Your task to perform on an android device: open sync settings in chrome Image 0: 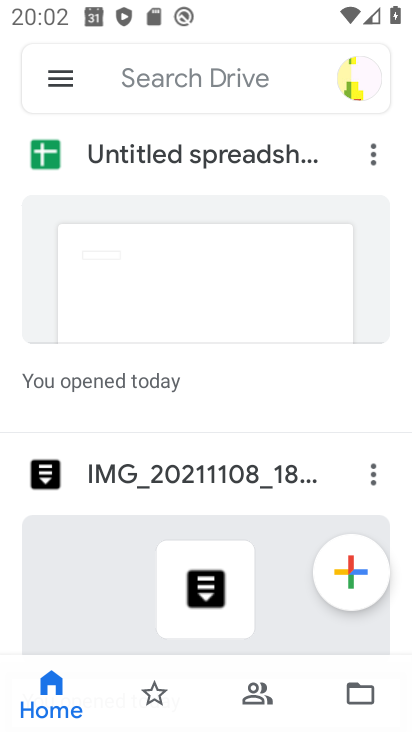
Step 0: press home button
Your task to perform on an android device: open sync settings in chrome Image 1: 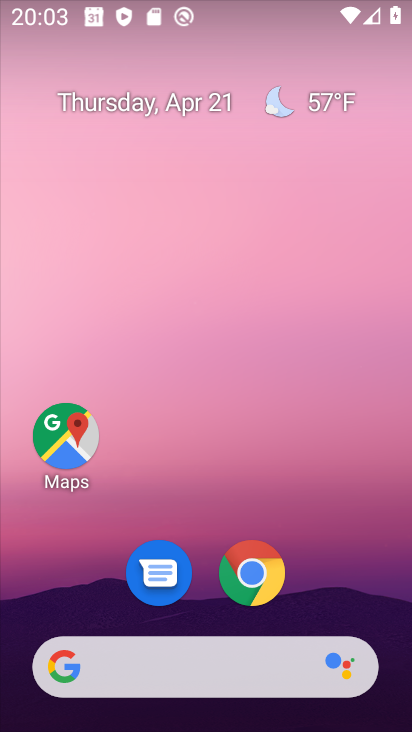
Step 1: click (248, 571)
Your task to perform on an android device: open sync settings in chrome Image 2: 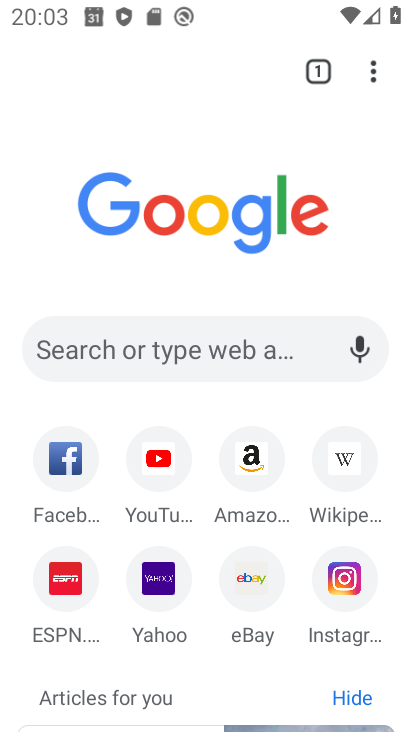
Step 2: drag from (374, 67) to (167, 602)
Your task to perform on an android device: open sync settings in chrome Image 3: 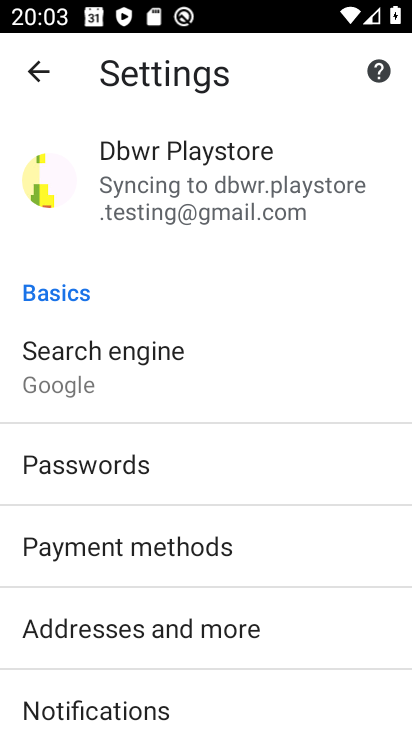
Step 3: drag from (166, 683) to (189, 341)
Your task to perform on an android device: open sync settings in chrome Image 4: 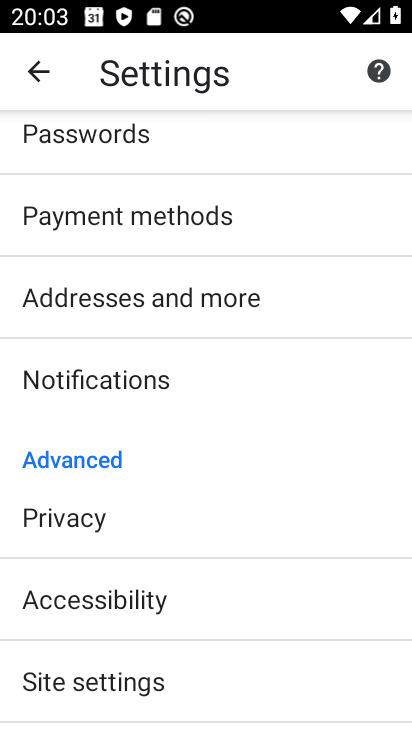
Step 4: drag from (181, 668) to (193, 404)
Your task to perform on an android device: open sync settings in chrome Image 5: 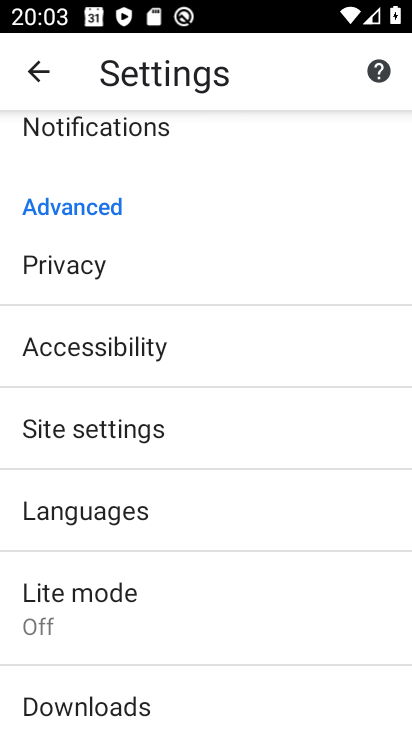
Step 5: click (140, 430)
Your task to perform on an android device: open sync settings in chrome Image 6: 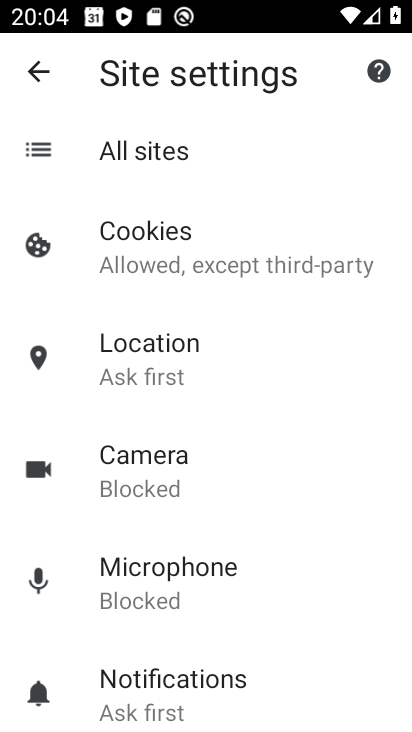
Step 6: drag from (152, 638) to (163, 390)
Your task to perform on an android device: open sync settings in chrome Image 7: 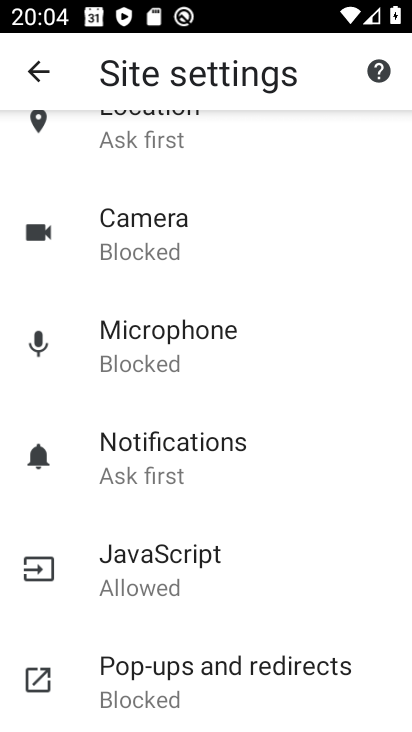
Step 7: drag from (165, 621) to (174, 373)
Your task to perform on an android device: open sync settings in chrome Image 8: 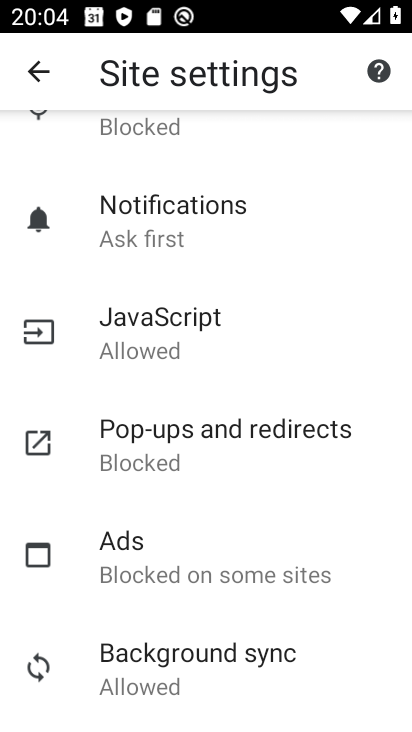
Step 8: click (182, 656)
Your task to perform on an android device: open sync settings in chrome Image 9: 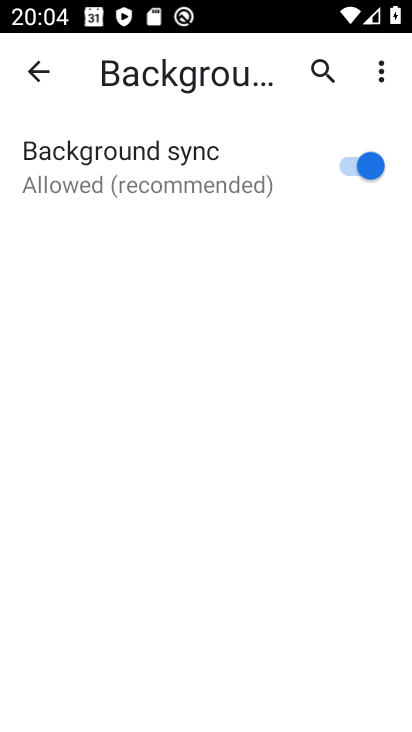
Step 9: task complete